Your task to perform on an android device: delete a single message in the gmail app Image 0: 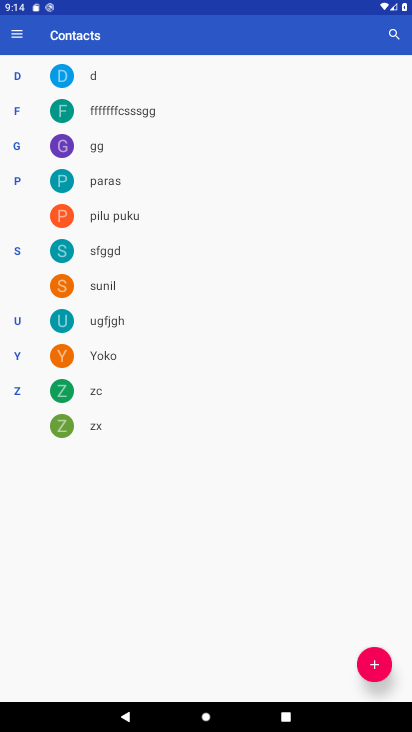
Step 0: press home button
Your task to perform on an android device: delete a single message in the gmail app Image 1: 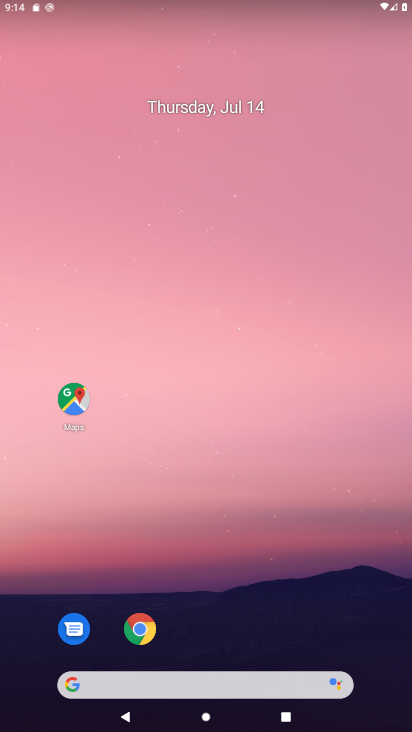
Step 1: drag from (294, 615) to (256, 104)
Your task to perform on an android device: delete a single message in the gmail app Image 2: 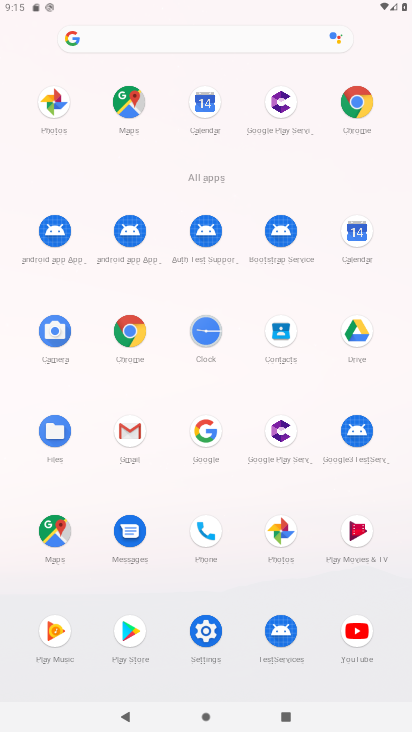
Step 2: click (123, 428)
Your task to perform on an android device: delete a single message in the gmail app Image 3: 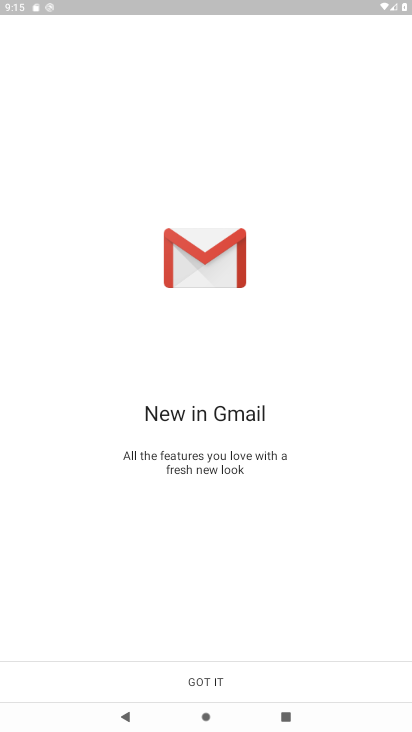
Step 3: click (218, 670)
Your task to perform on an android device: delete a single message in the gmail app Image 4: 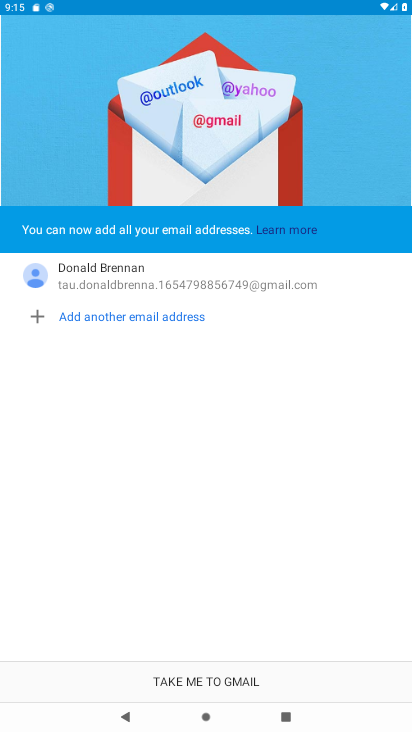
Step 4: click (218, 670)
Your task to perform on an android device: delete a single message in the gmail app Image 5: 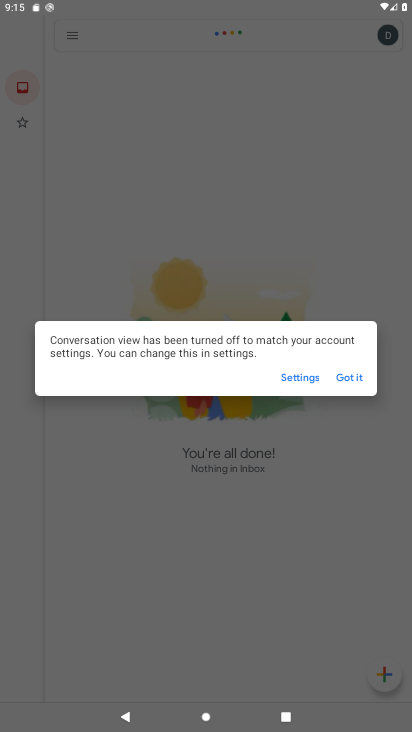
Step 5: click (354, 372)
Your task to perform on an android device: delete a single message in the gmail app Image 6: 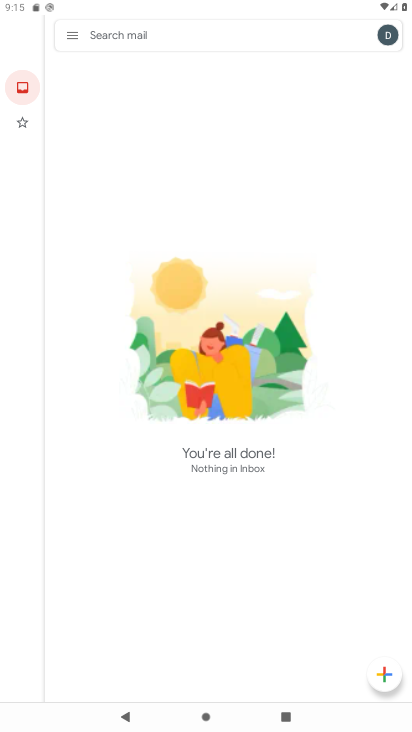
Step 6: task complete